Your task to perform on an android device: turn on showing notifications on the lock screen Image 0: 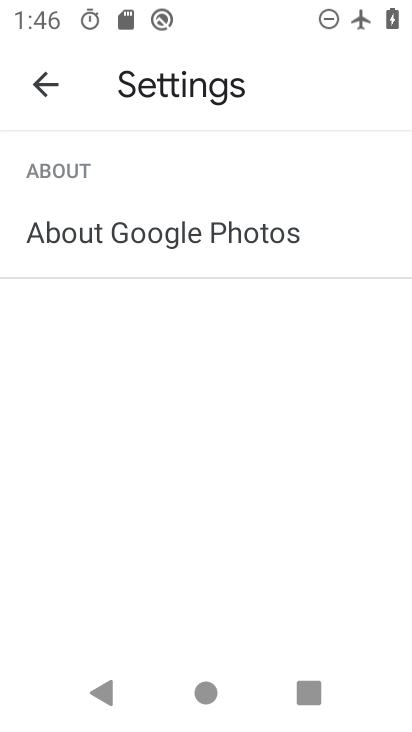
Step 0: press home button
Your task to perform on an android device: turn on showing notifications on the lock screen Image 1: 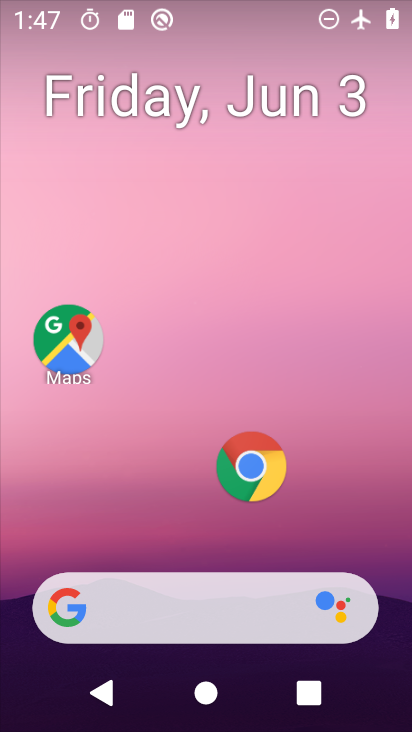
Step 1: drag from (229, 268) to (229, 133)
Your task to perform on an android device: turn on showing notifications on the lock screen Image 2: 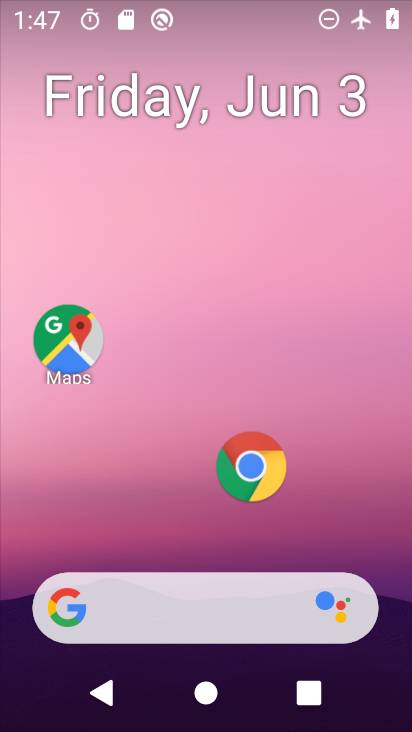
Step 2: drag from (218, 496) to (267, 341)
Your task to perform on an android device: turn on showing notifications on the lock screen Image 3: 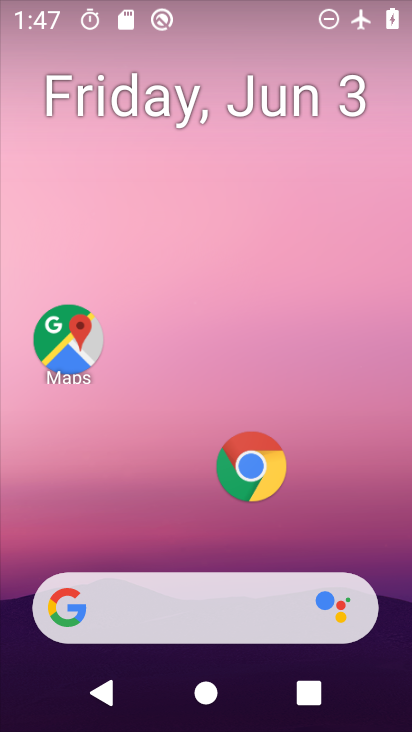
Step 3: drag from (224, 536) to (245, 326)
Your task to perform on an android device: turn on showing notifications on the lock screen Image 4: 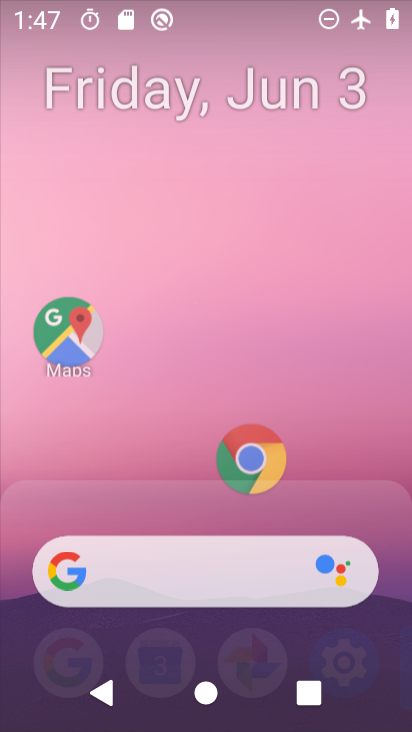
Step 4: drag from (234, 581) to (234, 237)
Your task to perform on an android device: turn on showing notifications on the lock screen Image 5: 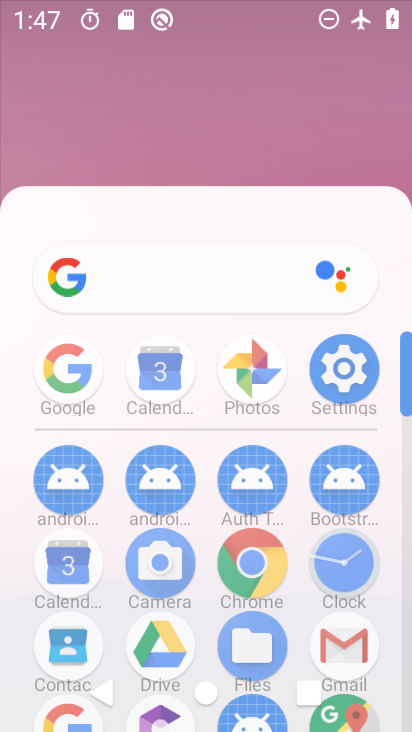
Step 5: drag from (179, 578) to (220, 239)
Your task to perform on an android device: turn on showing notifications on the lock screen Image 6: 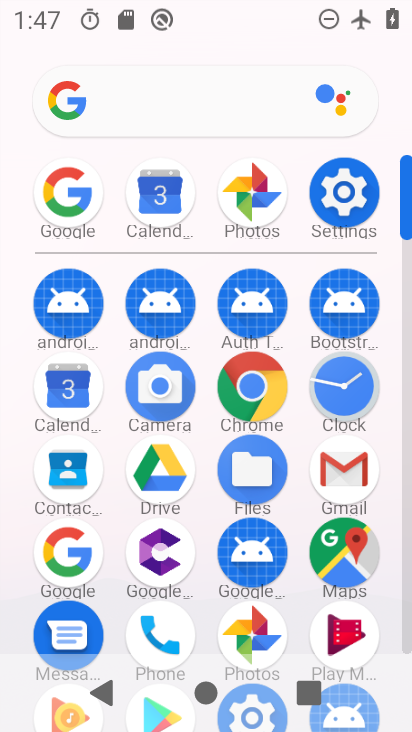
Step 6: drag from (190, 502) to (210, 202)
Your task to perform on an android device: turn on showing notifications on the lock screen Image 7: 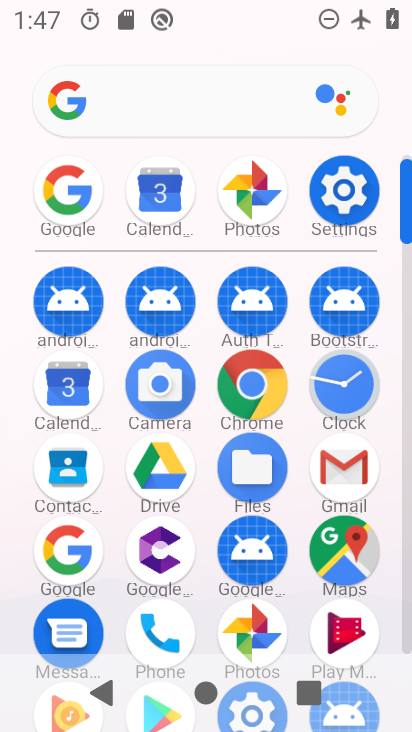
Step 7: drag from (192, 464) to (227, 228)
Your task to perform on an android device: turn on showing notifications on the lock screen Image 8: 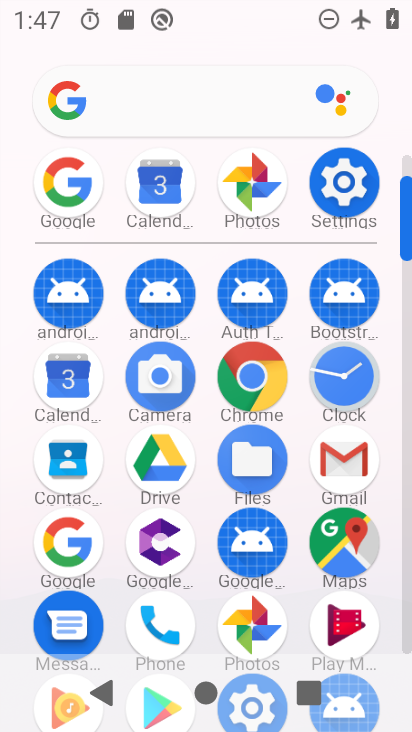
Step 8: drag from (248, 480) to (280, 215)
Your task to perform on an android device: turn on showing notifications on the lock screen Image 9: 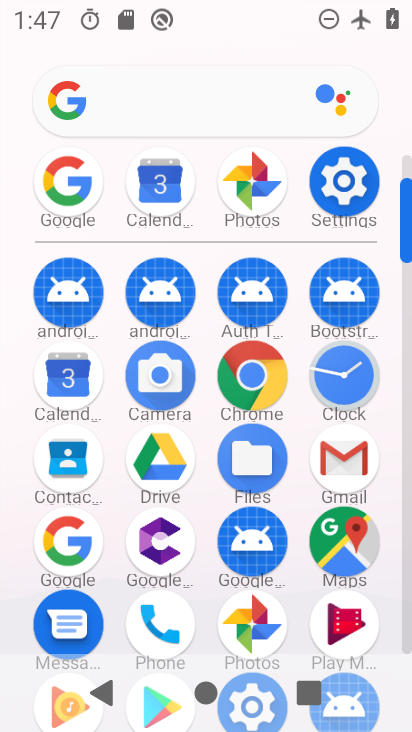
Step 9: drag from (285, 320) to (306, 128)
Your task to perform on an android device: turn on showing notifications on the lock screen Image 10: 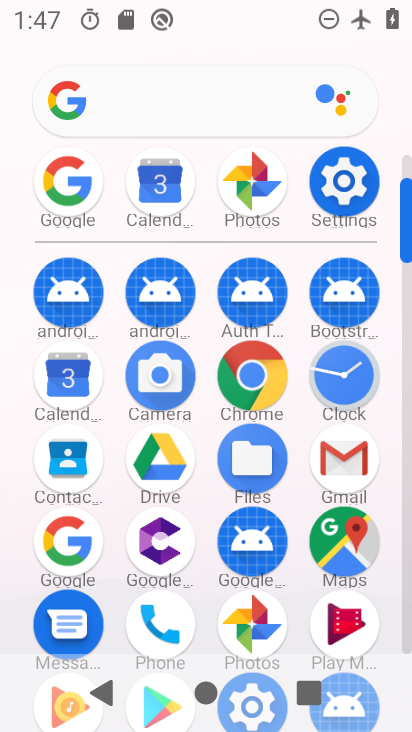
Step 10: click (359, 203)
Your task to perform on an android device: turn on showing notifications on the lock screen Image 11: 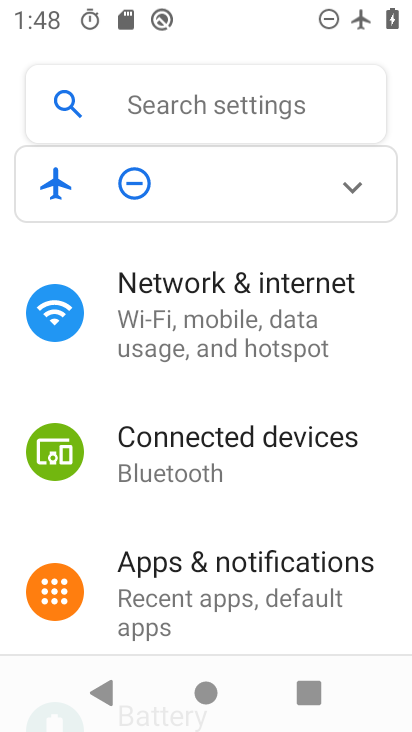
Step 11: drag from (158, 568) to (158, 353)
Your task to perform on an android device: turn on showing notifications on the lock screen Image 12: 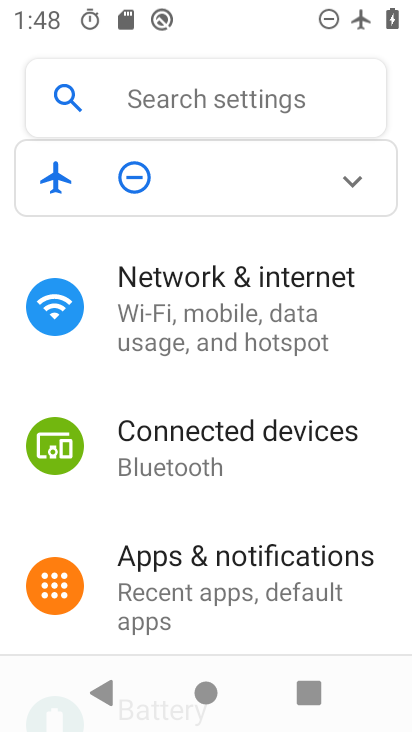
Step 12: click (164, 292)
Your task to perform on an android device: turn on showing notifications on the lock screen Image 13: 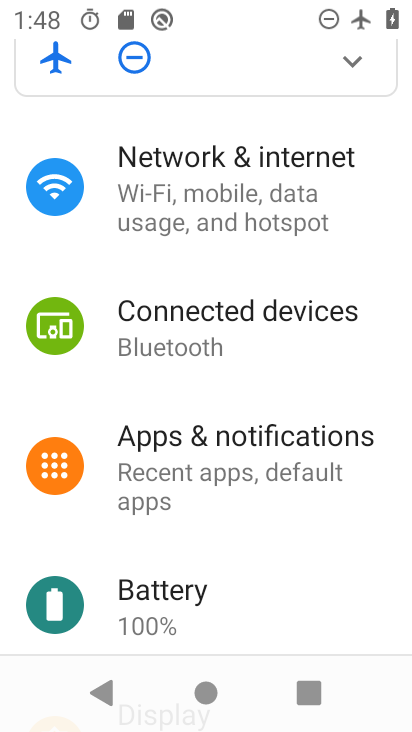
Step 13: drag from (185, 427) to (177, 278)
Your task to perform on an android device: turn on showing notifications on the lock screen Image 14: 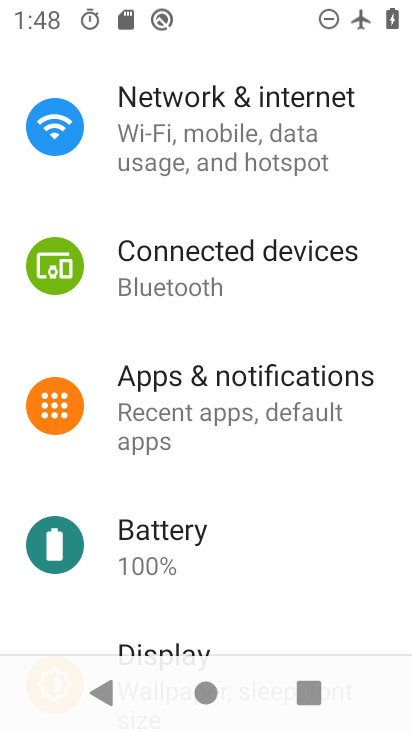
Step 14: drag from (207, 456) to (202, 292)
Your task to perform on an android device: turn on showing notifications on the lock screen Image 15: 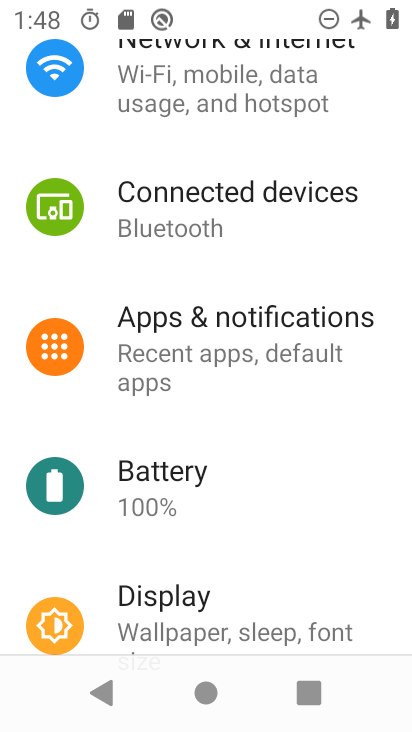
Step 15: drag from (243, 411) to (261, 255)
Your task to perform on an android device: turn on showing notifications on the lock screen Image 16: 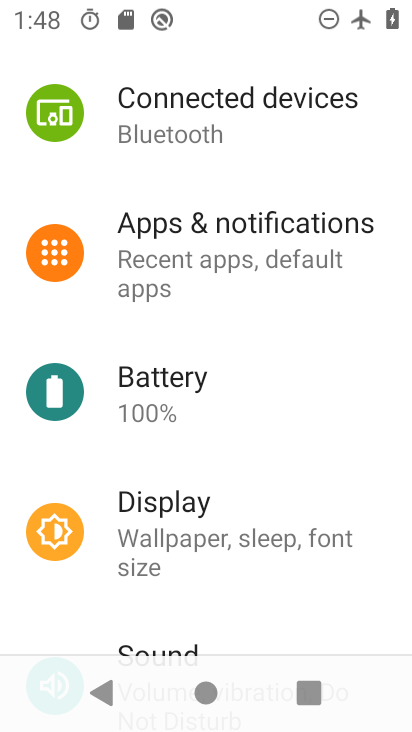
Step 16: drag from (212, 486) to (232, 290)
Your task to perform on an android device: turn on showing notifications on the lock screen Image 17: 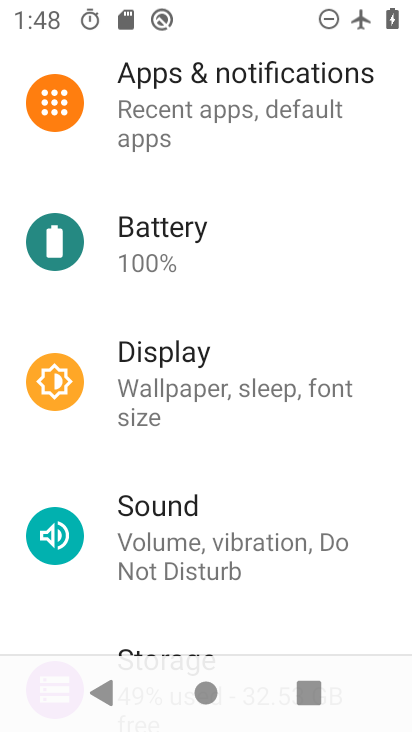
Step 17: drag from (238, 429) to (246, 479)
Your task to perform on an android device: turn on showing notifications on the lock screen Image 18: 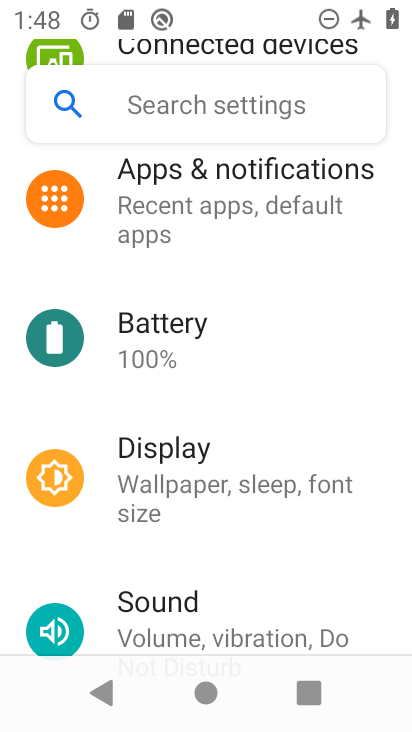
Step 18: drag from (238, 266) to (233, 580)
Your task to perform on an android device: turn on showing notifications on the lock screen Image 19: 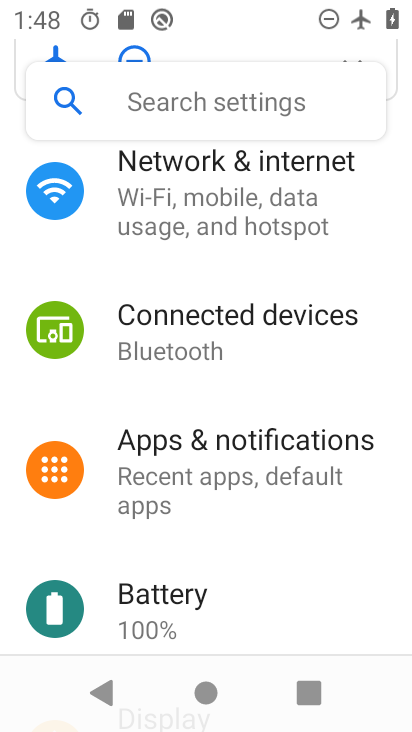
Step 19: drag from (216, 285) to (245, 351)
Your task to perform on an android device: turn on showing notifications on the lock screen Image 20: 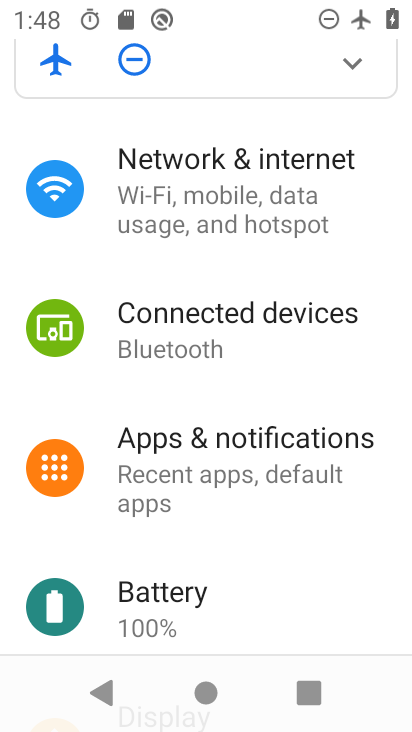
Step 20: drag from (256, 495) to (240, 270)
Your task to perform on an android device: turn on showing notifications on the lock screen Image 21: 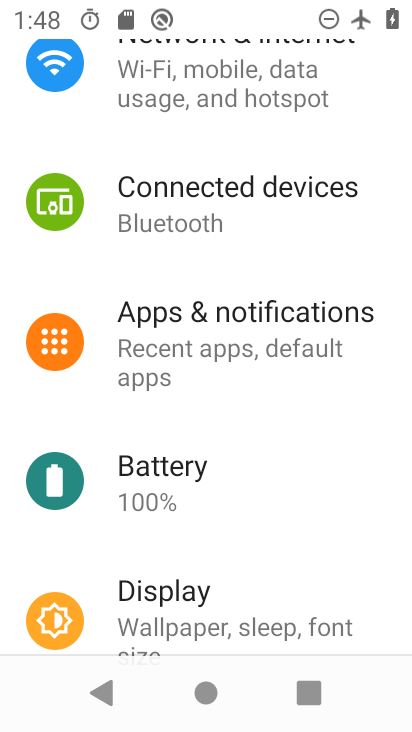
Step 21: drag from (206, 538) to (190, 274)
Your task to perform on an android device: turn on showing notifications on the lock screen Image 22: 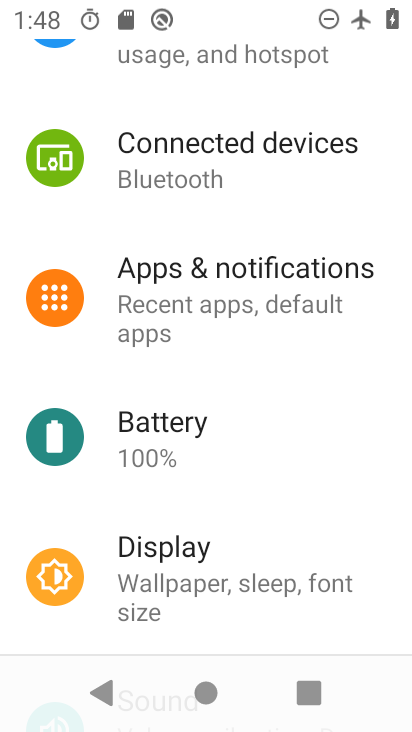
Step 22: drag from (185, 565) to (188, 317)
Your task to perform on an android device: turn on showing notifications on the lock screen Image 23: 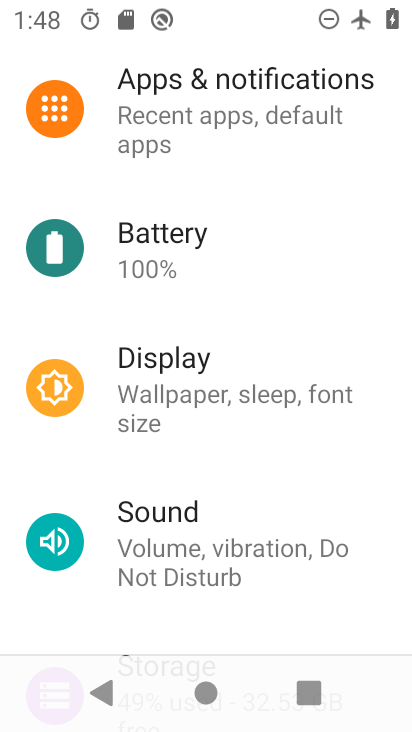
Step 23: drag from (211, 525) to (221, 292)
Your task to perform on an android device: turn on showing notifications on the lock screen Image 24: 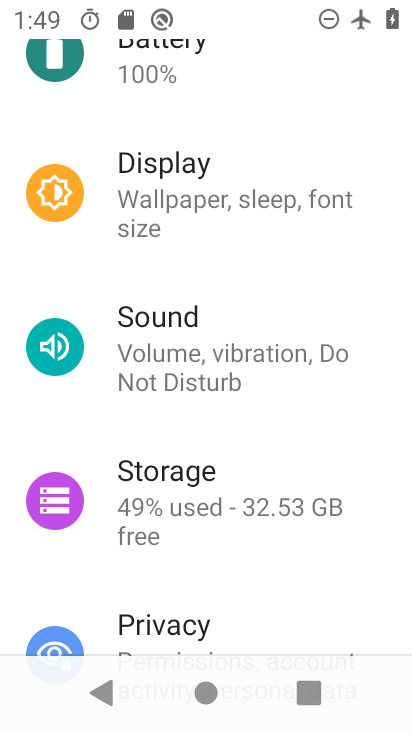
Step 24: drag from (215, 278) to (215, 551)
Your task to perform on an android device: turn on showing notifications on the lock screen Image 25: 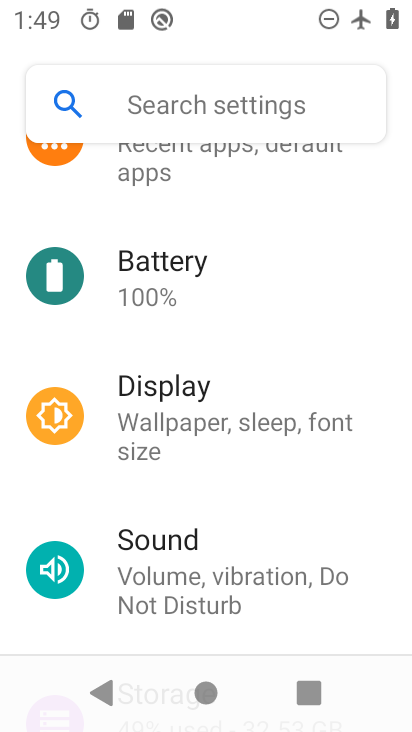
Step 25: drag from (244, 199) to (244, 493)
Your task to perform on an android device: turn on showing notifications on the lock screen Image 26: 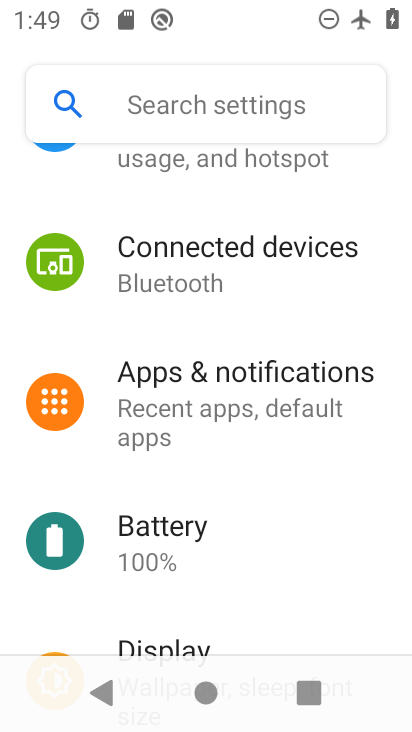
Step 26: click (219, 408)
Your task to perform on an android device: turn on showing notifications on the lock screen Image 27: 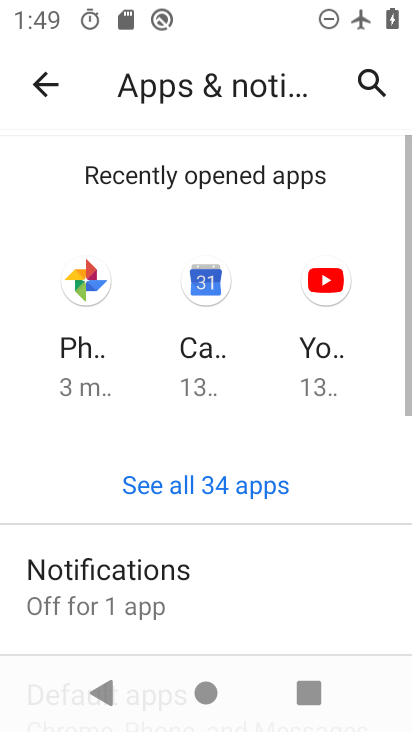
Step 27: click (212, 571)
Your task to perform on an android device: turn on showing notifications on the lock screen Image 28: 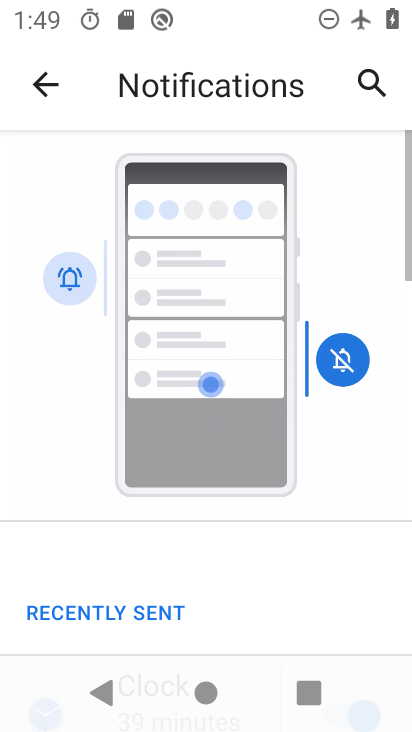
Step 28: drag from (218, 591) to (202, 204)
Your task to perform on an android device: turn on showing notifications on the lock screen Image 29: 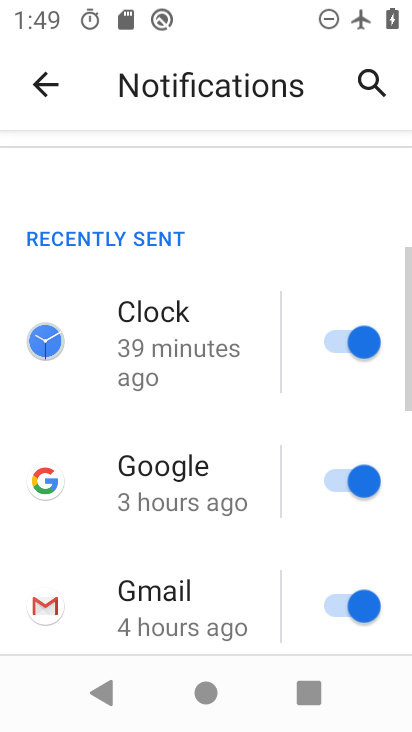
Step 29: drag from (235, 563) to (230, 251)
Your task to perform on an android device: turn on showing notifications on the lock screen Image 30: 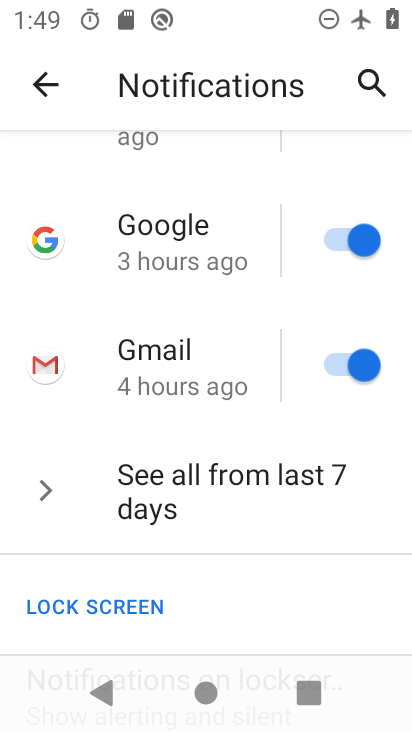
Step 30: drag from (243, 563) to (231, 271)
Your task to perform on an android device: turn on showing notifications on the lock screen Image 31: 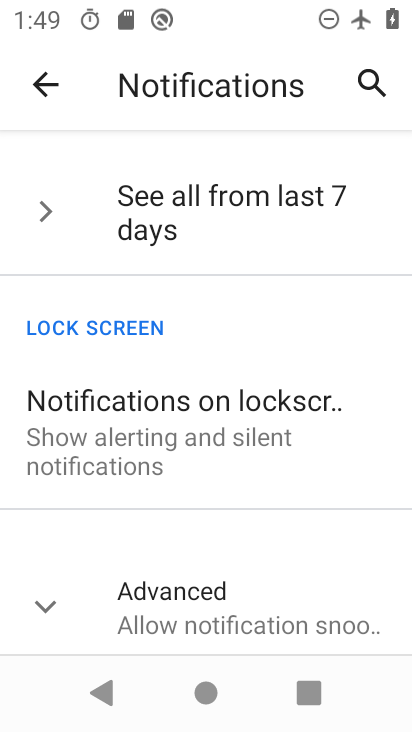
Step 31: click (231, 422)
Your task to perform on an android device: turn on showing notifications on the lock screen Image 32: 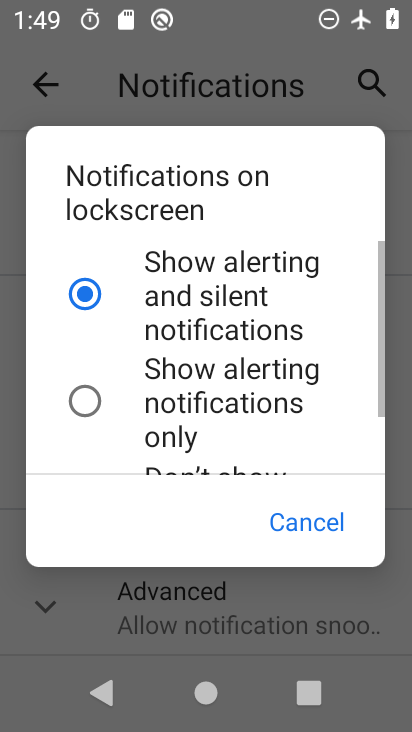
Step 32: task complete